Your task to perform on an android device: star an email in the gmail app Image 0: 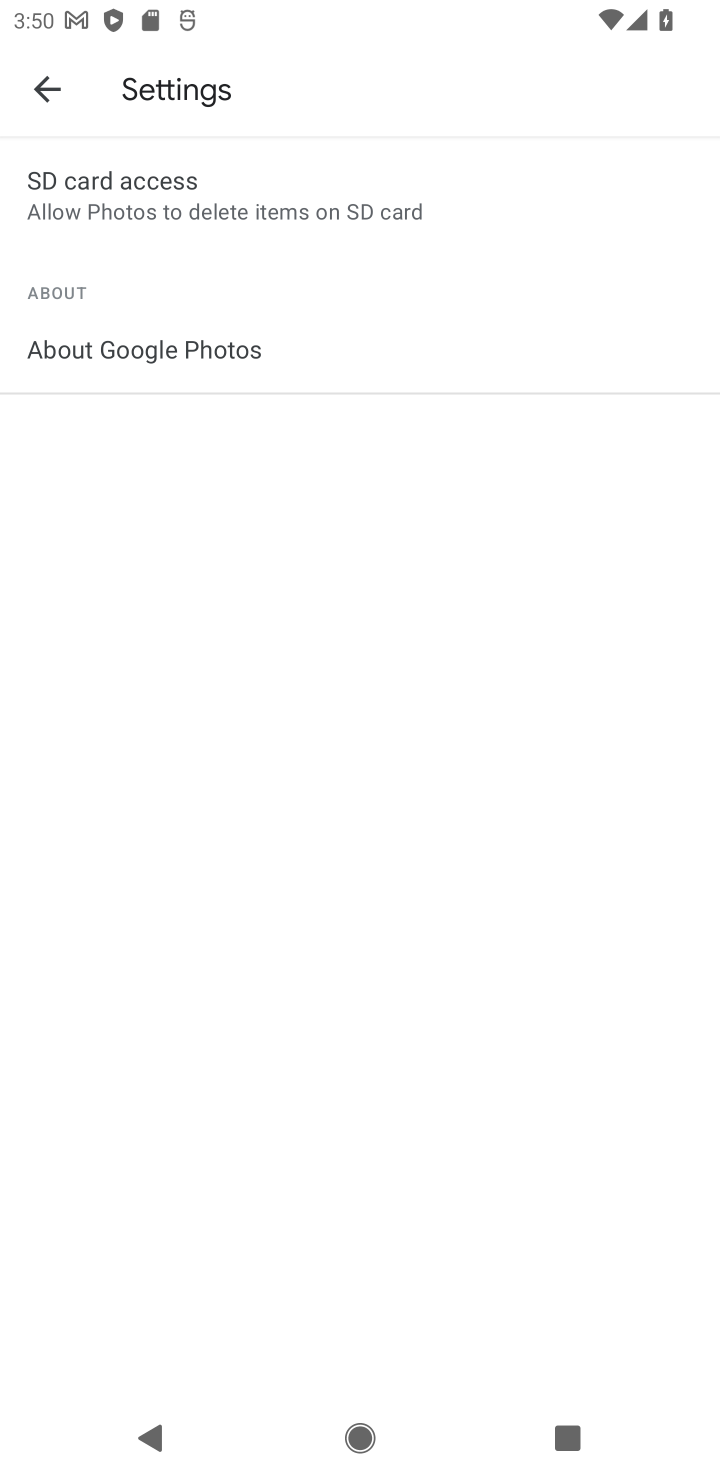
Step 0: press home button
Your task to perform on an android device: star an email in the gmail app Image 1: 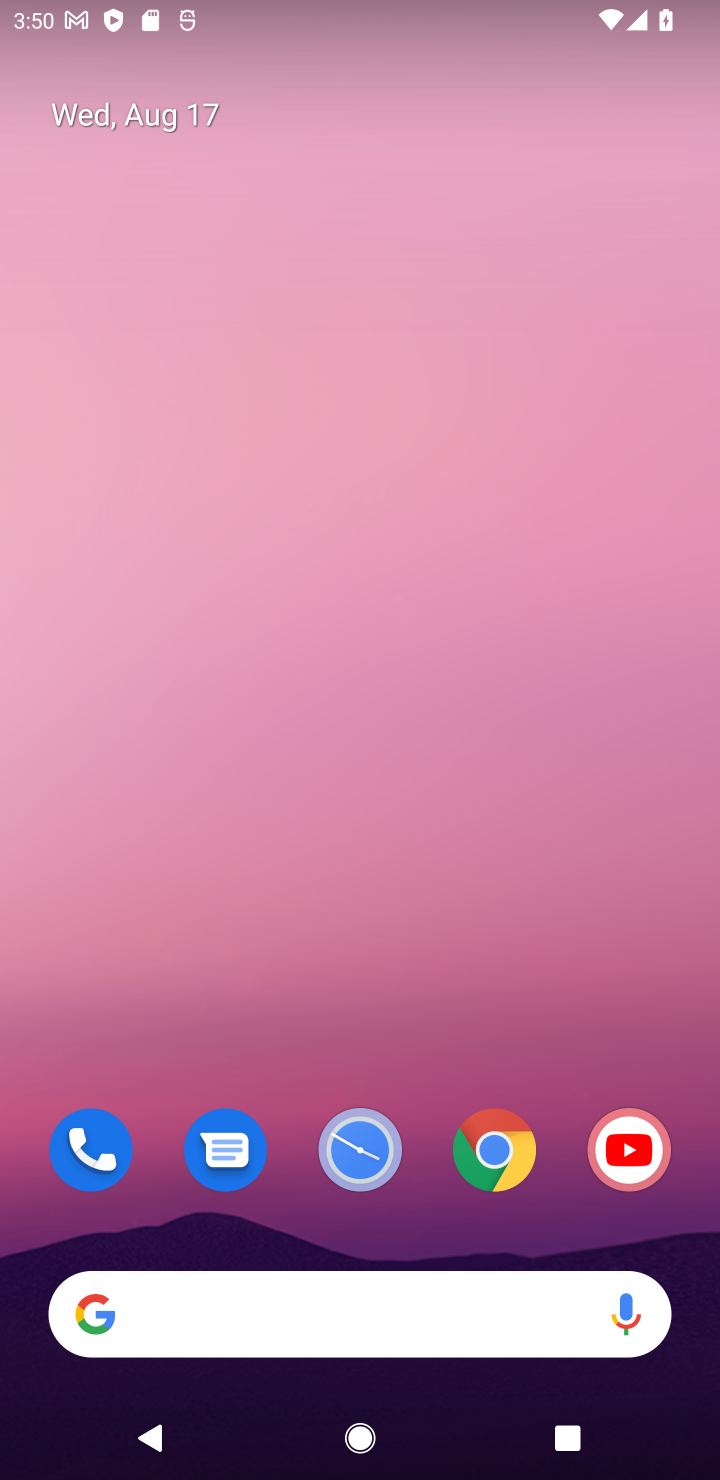
Step 1: drag from (683, 1247) to (416, 43)
Your task to perform on an android device: star an email in the gmail app Image 2: 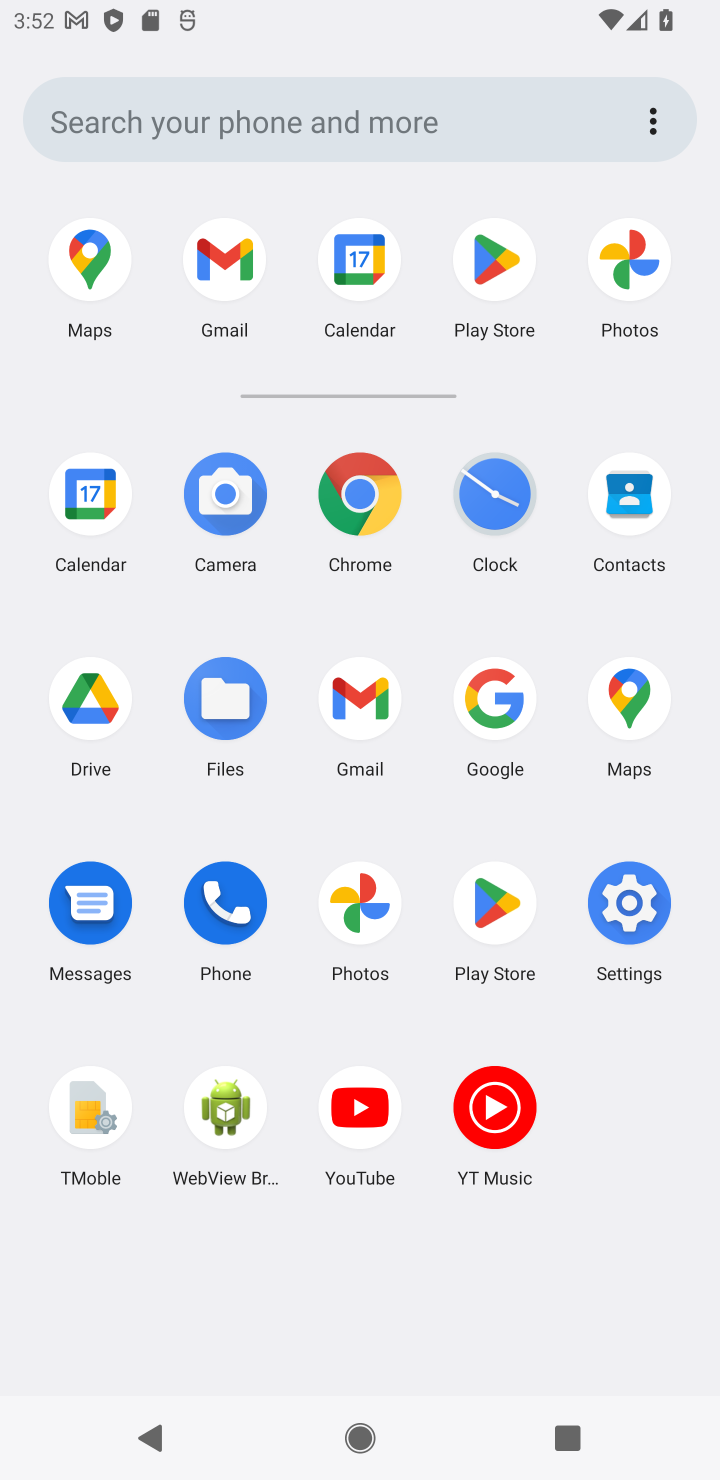
Step 2: click (367, 700)
Your task to perform on an android device: star an email in the gmail app Image 3: 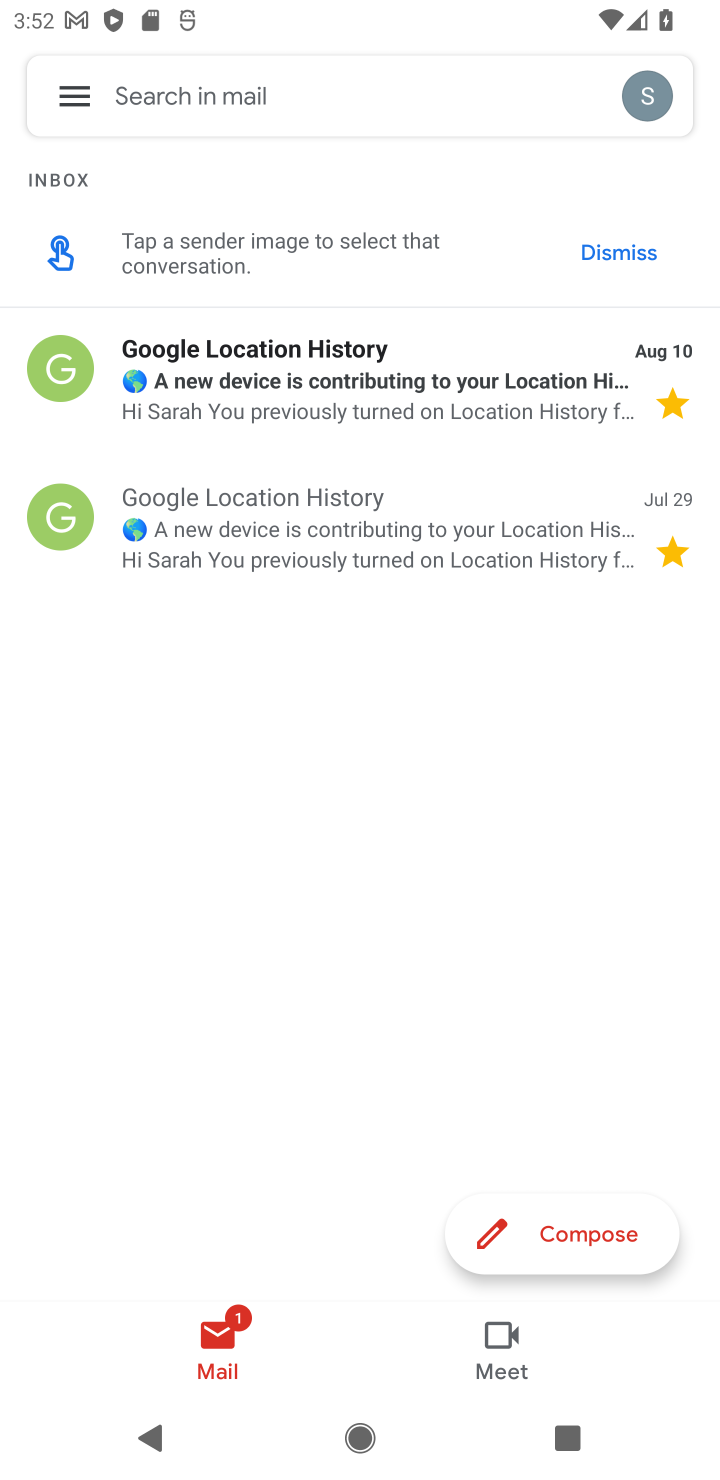
Step 3: task complete